Your task to perform on an android device: Open Google Chrome and open the bookmarks view Image 0: 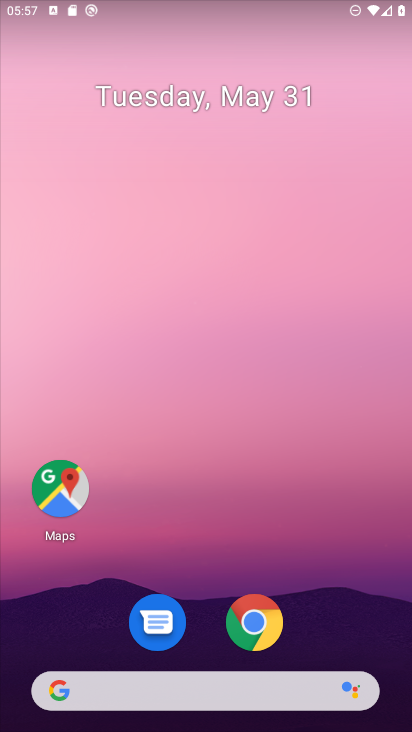
Step 0: drag from (387, 689) to (288, 13)
Your task to perform on an android device: Open Google Chrome and open the bookmarks view Image 1: 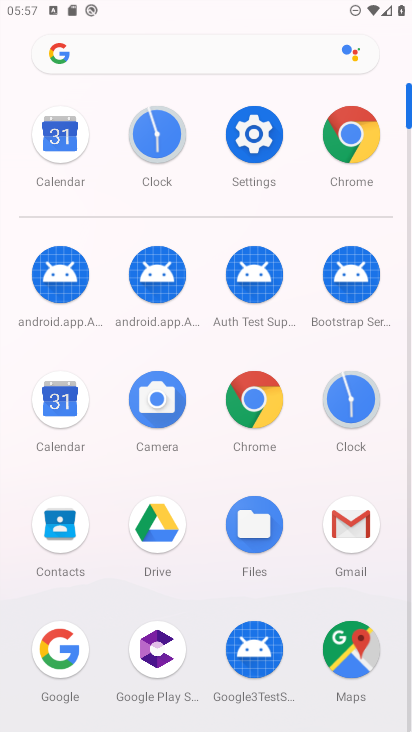
Step 1: click (262, 399)
Your task to perform on an android device: Open Google Chrome and open the bookmarks view Image 2: 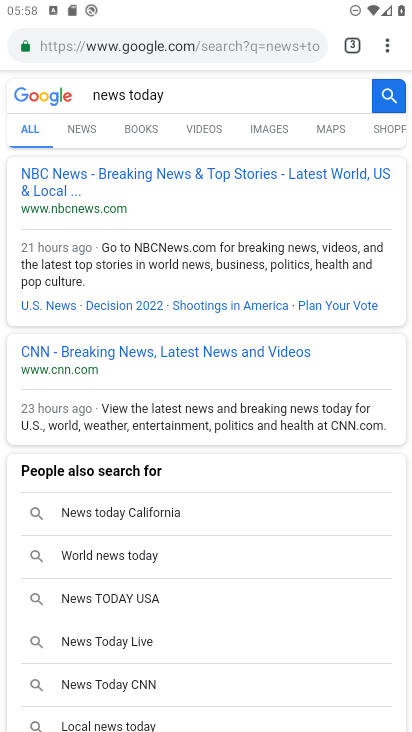
Step 2: press home button
Your task to perform on an android device: Open Google Chrome and open the bookmarks view Image 3: 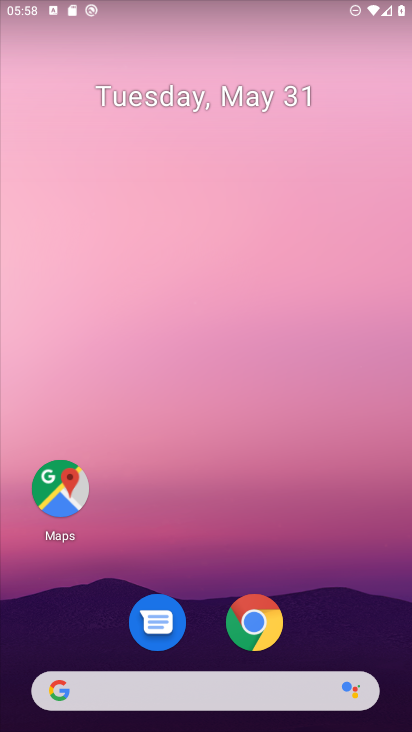
Step 3: drag from (308, 662) to (398, 1)
Your task to perform on an android device: Open Google Chrome and open the bookmarks view Image 4: 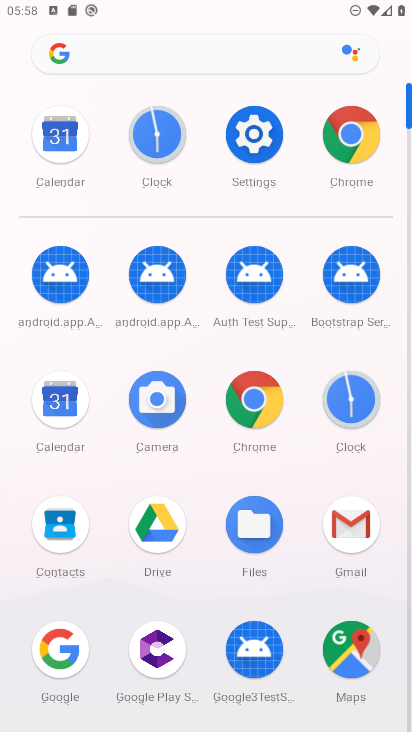
Step 4: click (258, 388)
Your task to perform on an android device: Open Google Chrome and open the bookmarks view Image 5: 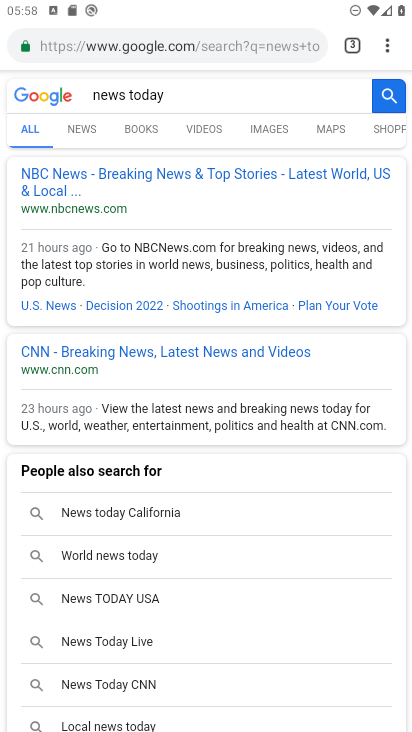
Step 5: task complete